Your task to perform on an android device: What is the news today? Image 0: 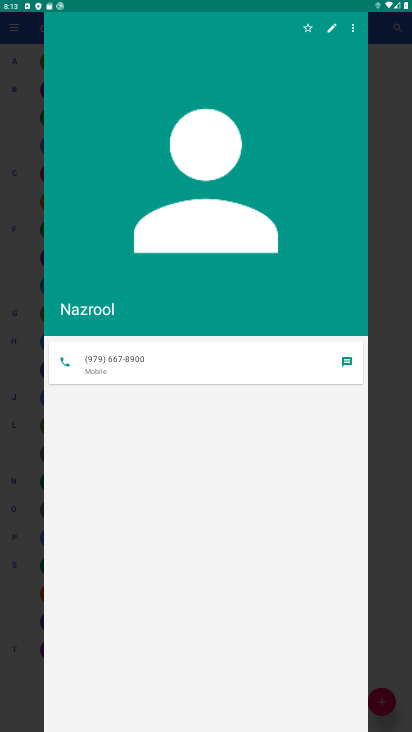
Step 0: press home button
Your task to perform on an android device: What is the news today? Image 1: 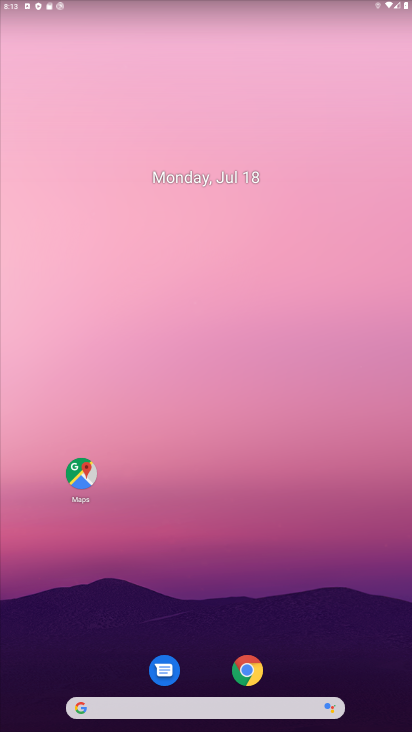
Step 1: click (159, 703)
Your task to perform on an android device: What is the news today? Image 2: 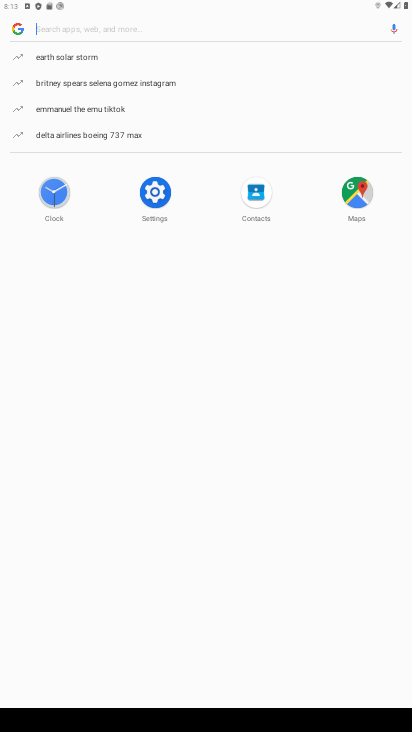
Step 2: type "news today"
Your task to perform on an android device: What is the news today? Image 3: 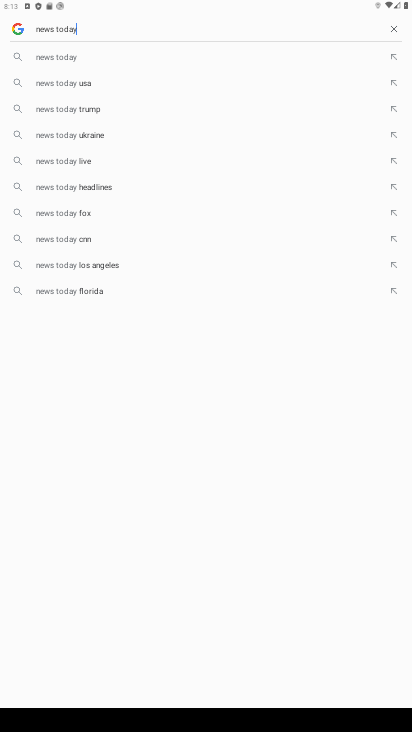
Step 3: click (56, 60)
Your task to perform on an android device: What is the news today? Image 4: 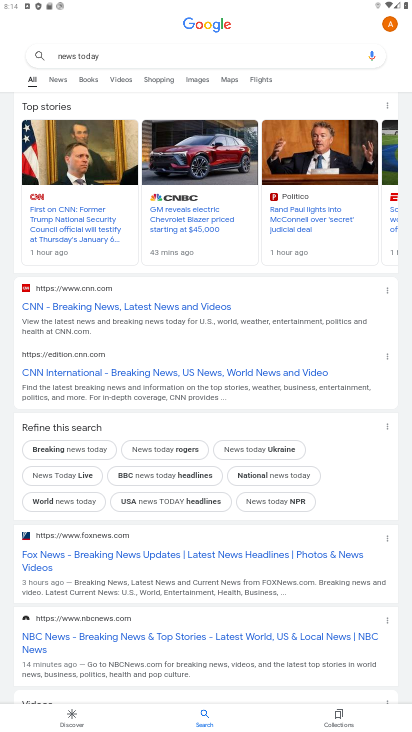
Step 4: task complete